Your task to perform on an android device: Search for 12ft 120W LED tube light on home depot Image 0: 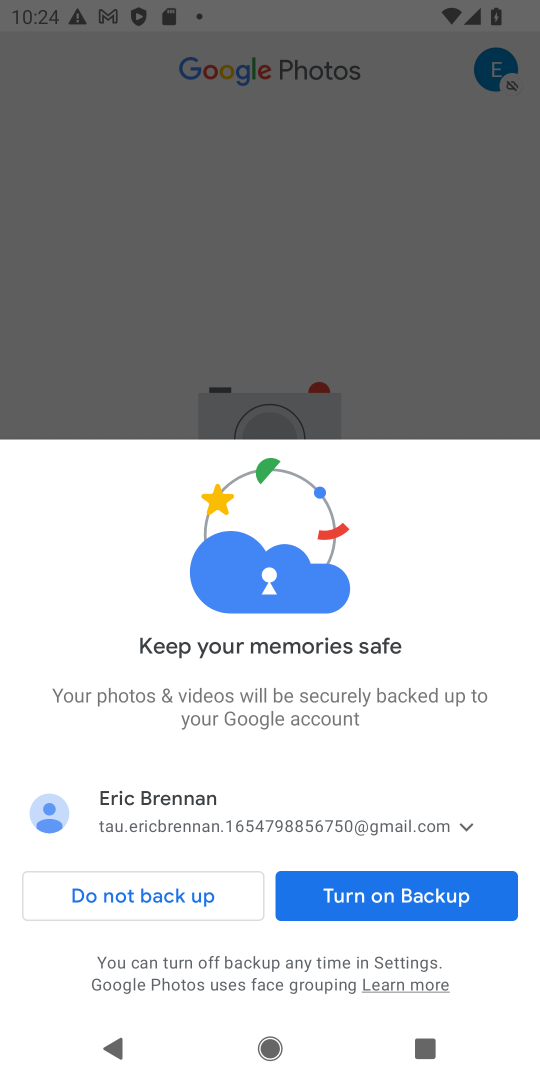
Step 0: press home button
Your task to perform on an android device: Search for 12ft 120W LED tube light on home depot Image 1: 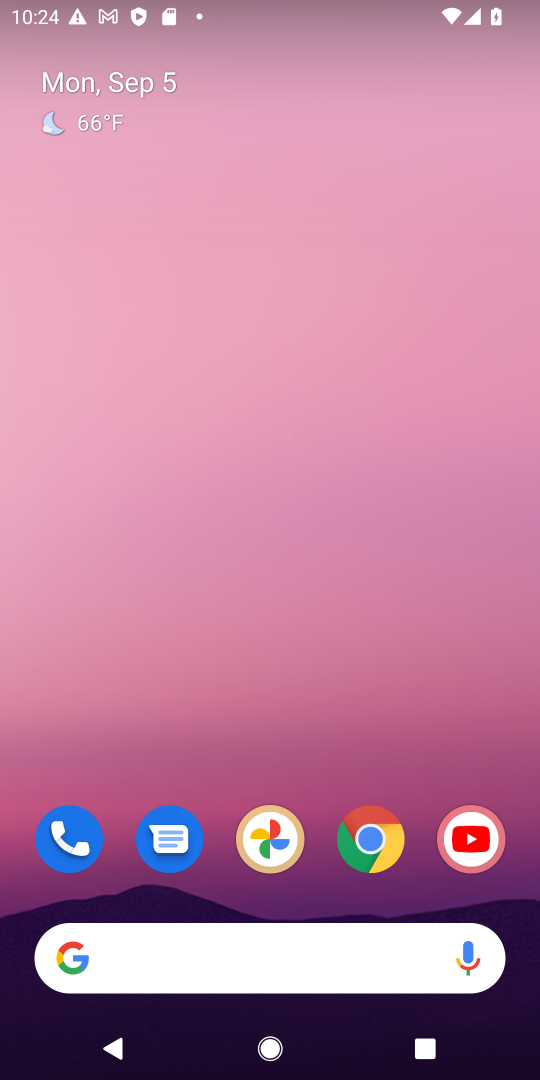
Step 1: drag from (252, 924) to (253, 233)
Your task to perform on an android device: Search for 12ft 120W LED tube light on home depot Image 2: 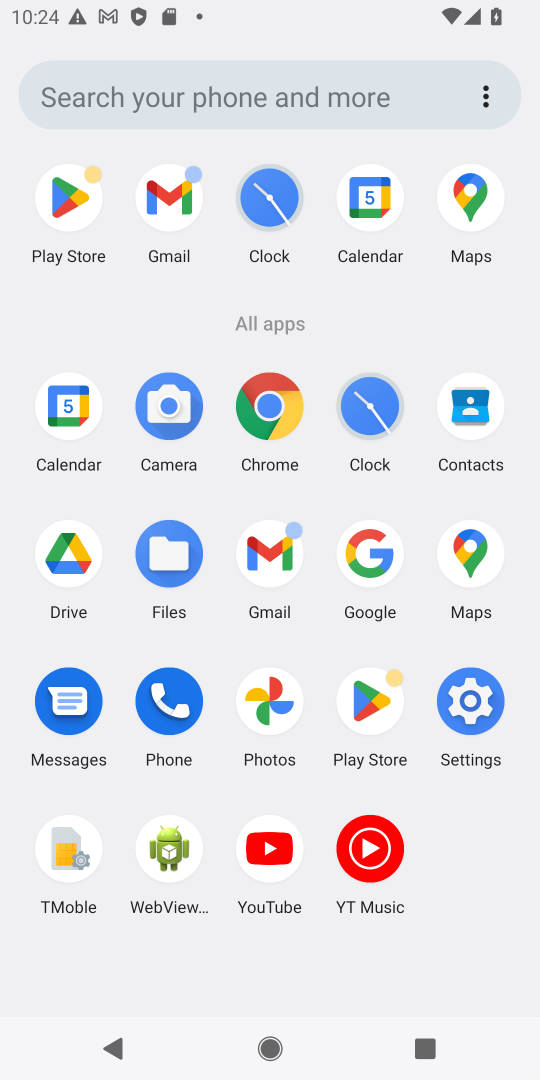
Step 2: click (365, 558)
Your task to perform on an android device: Search for 12ft 120W LED tube light on home depot Image 3: 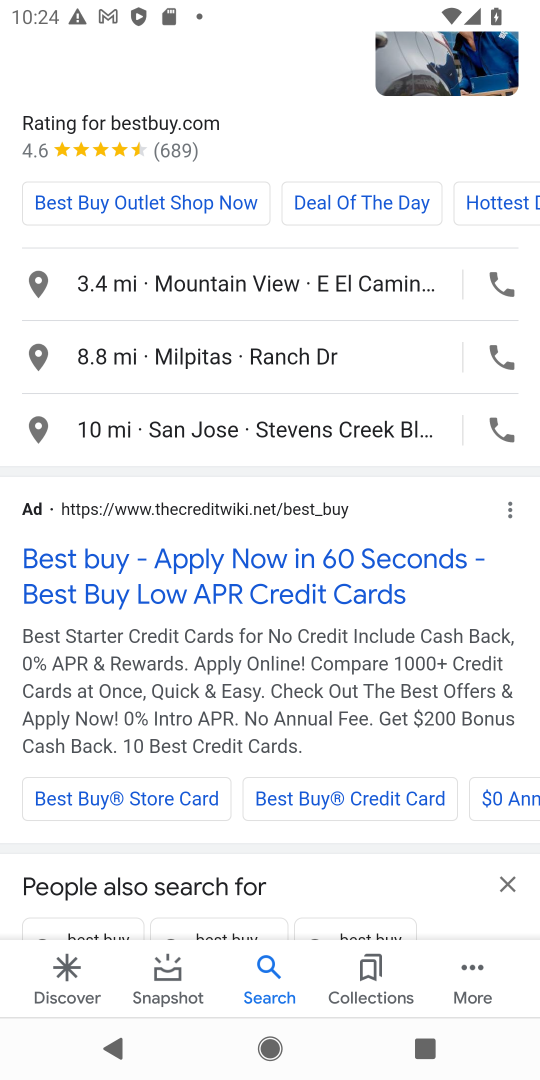
Step 3: drag from (258, 380) to (258, 681)
Your task to perform on an android device: Search for 12ft 120W LED tube light on home depot Image 4: 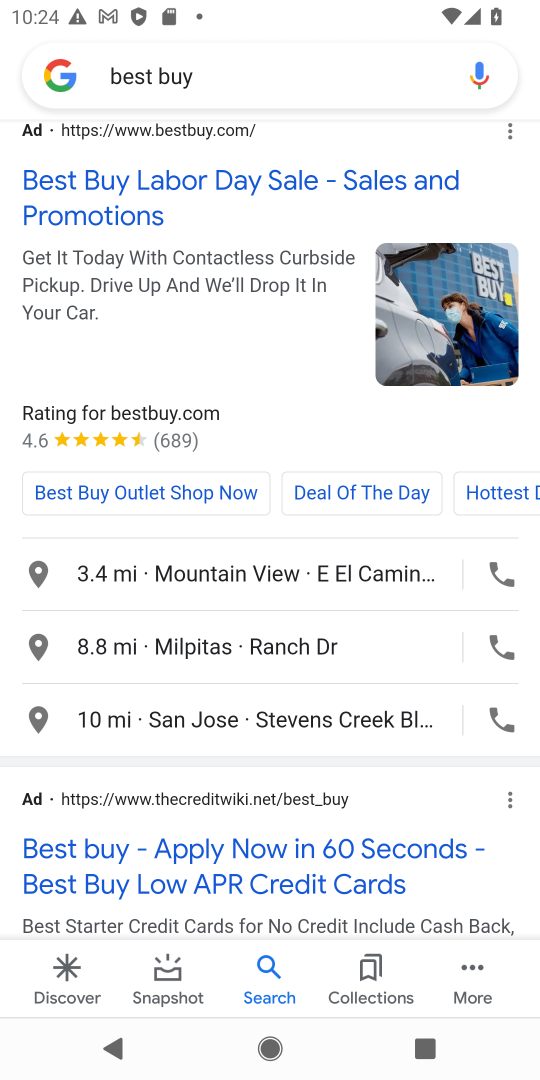
Step 4: click (221, 74)
Your task to perform on an android device: Search for 12ft 120W LED tube light on home depot Image 5: 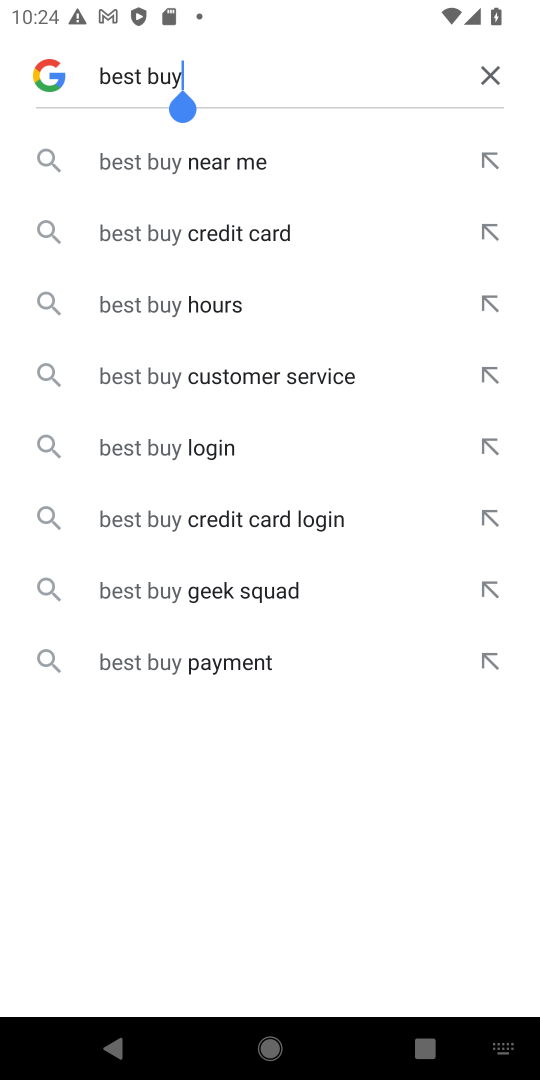
Step 5: click (488, 75)
Your task to perform on an android device: Search for 12ft 120W LED tube light on home depot Image 6: 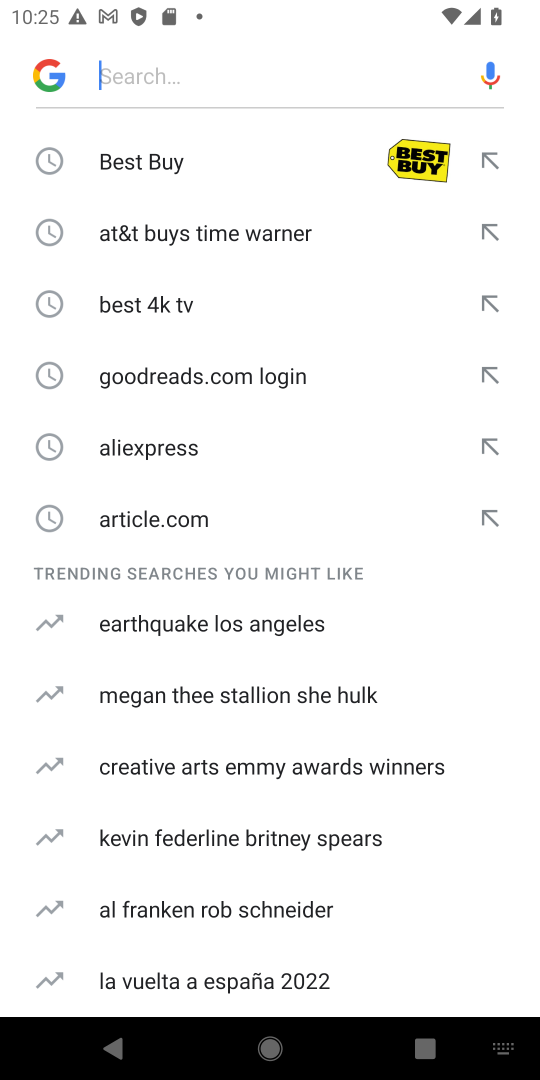
Step 6: type "home depot"
Your task to perform on an android device: Search for 12ft 120W LED tube light on home depot Image 7: 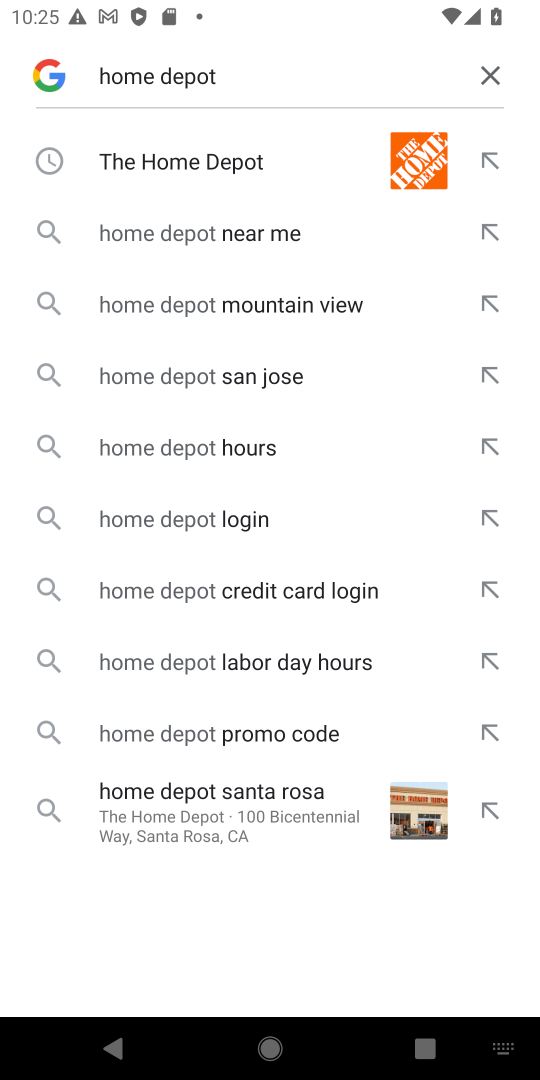
Step 7: click (165, 163)
Your task to perform on an android device: Search for 12ft 120W LED tube light on home depot Image 8: 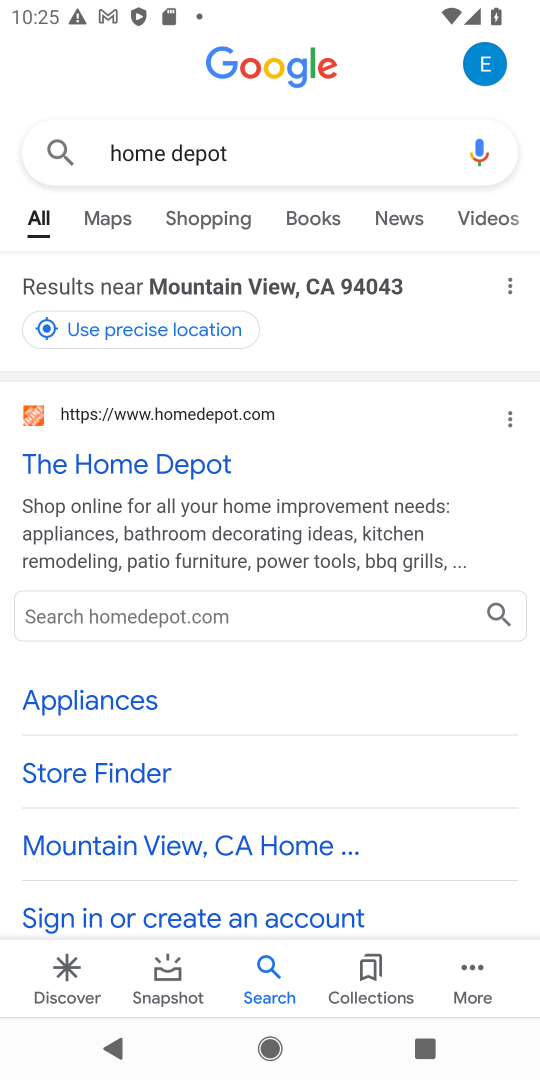
Step 8: click (157, 456)
Your task to perform on an android device: Search for 12ft 120W LED tube light on home depot Image 9: 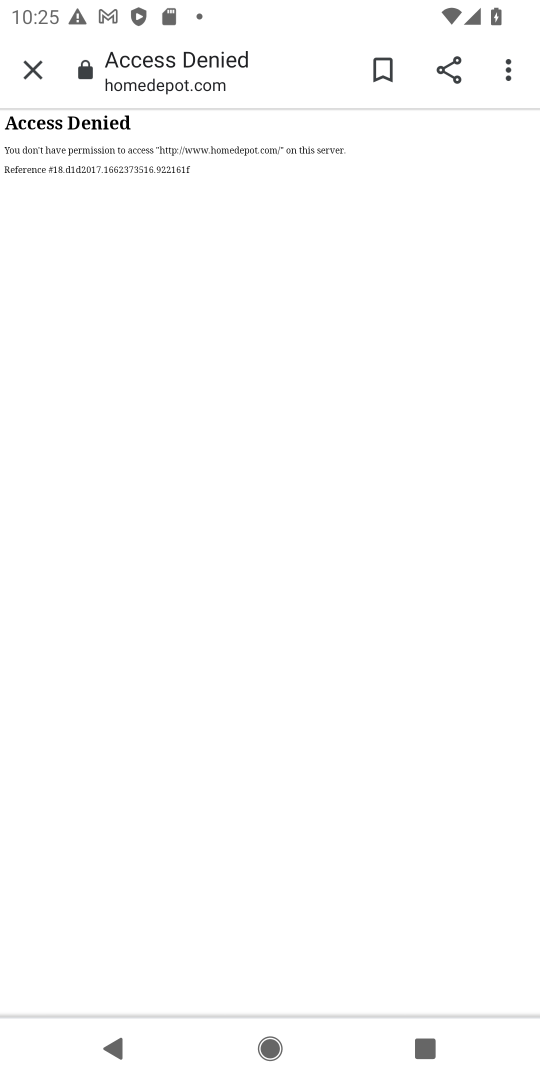
Step 9: task complete